Your task to perform on an android device: snooze an email in the gmail app Image 0: 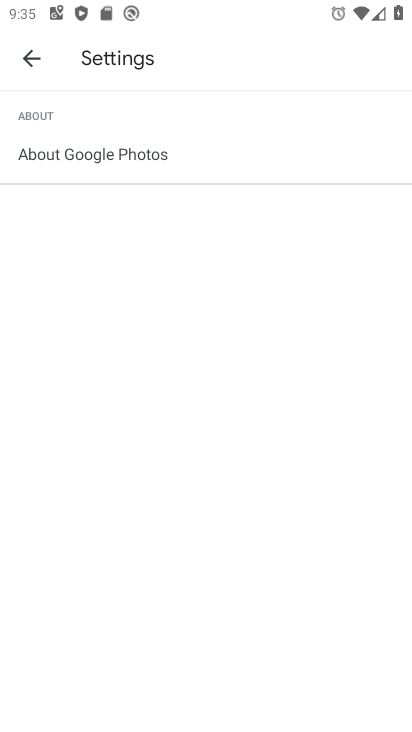
Step 0: press home button
Your task to perform on an android device: snooze an email in the gmail app Image 1: 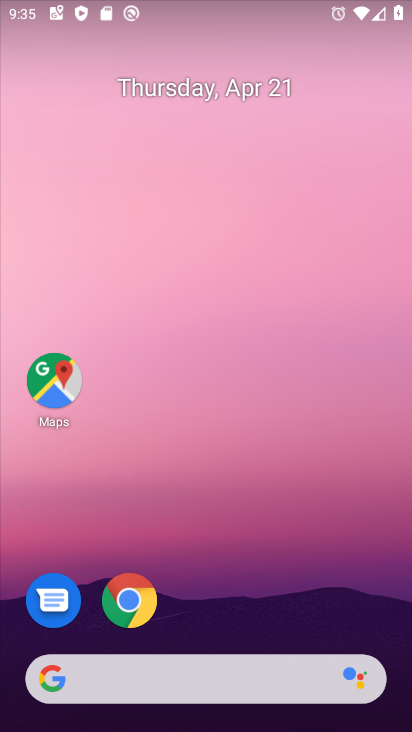
Step 1: drag from (235, 631) to (183, 80)
Your task to perform on an android device: snooze an email in the gmail app Image 2: 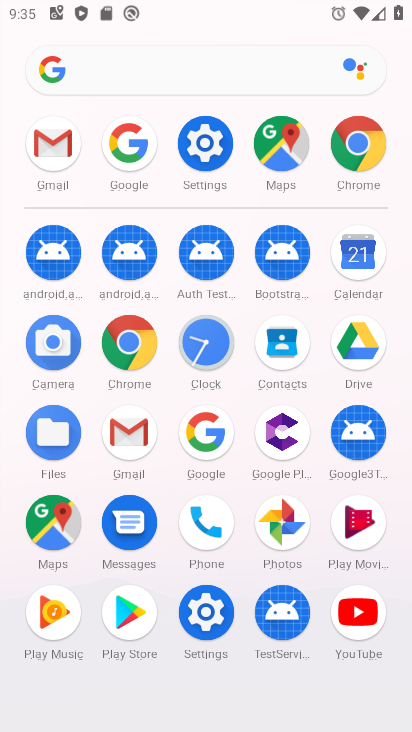
Step 2: click (52, 144)
Your task to perform on an android device: snooze an email in the gmail app Image 3: 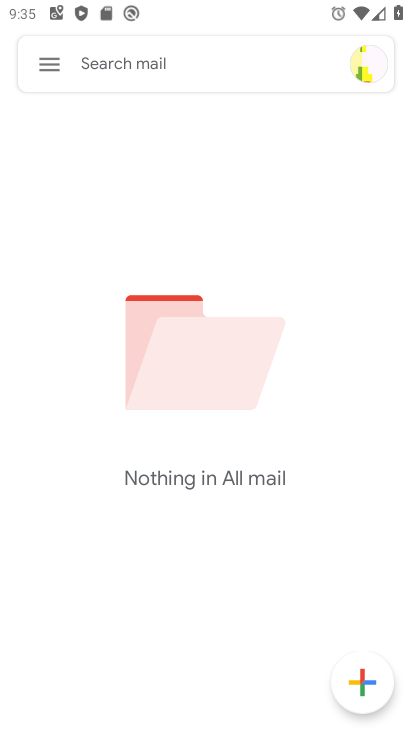
Step 3: click (48, 68)
Your task to perform on an android device: snooze an email in the gmail app Image 4: 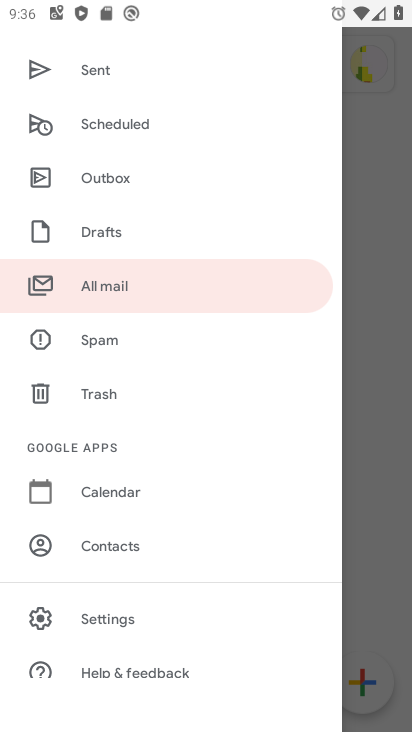
Step 4: task complete